Your task to perform on an android device: Open the web browser Image 0: 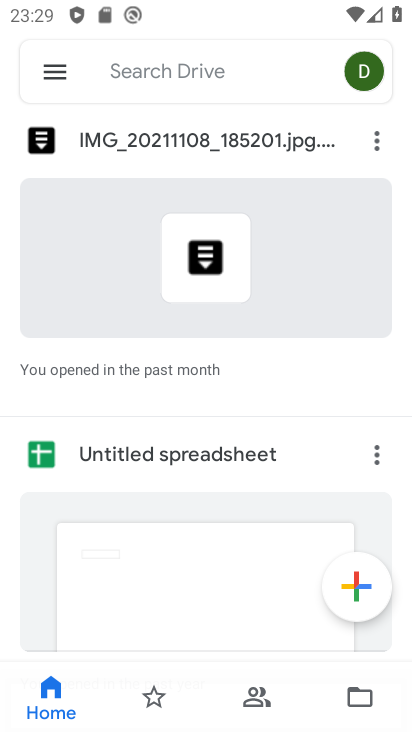
Step 0: press home button
Your task to perform on an android device: Open the web browser Image 1: 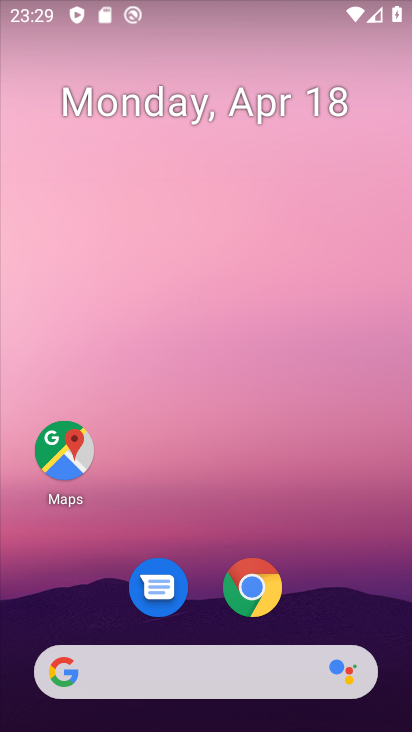
Step 1: drag from (364, 550) to (373, 170)
Your task to perform on an android device: Open the web browser Image 2: 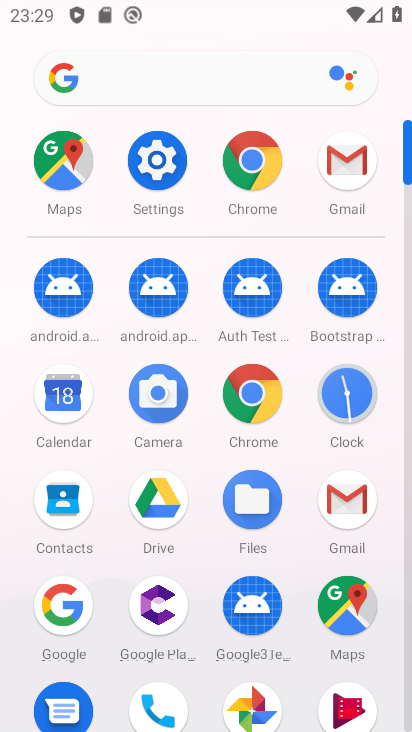
Step 2: click (267, 408)
Your task to perform on an android device: Open the web browser Image 3: 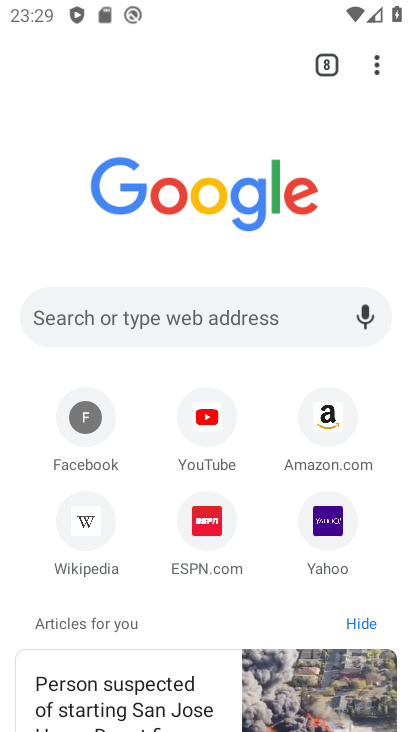
Step 3: task complete